Your task to perform on an android device: Go to CNN.com Image 0: 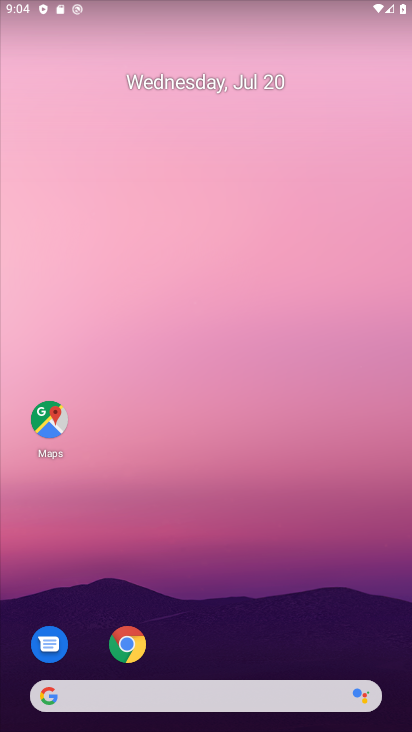
Step 0: click (206, 695)
Your task to perform on an android device: Go to CNN.com Image 1: 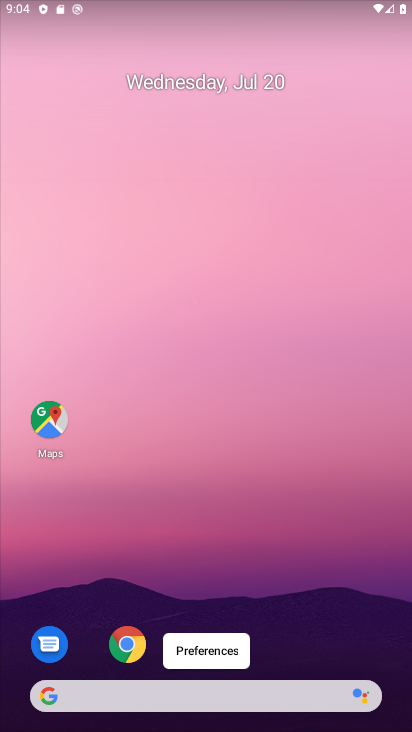
Step 1: click (103, 697)
Your task to perform on an android device: Go to CNN.com Image 2: 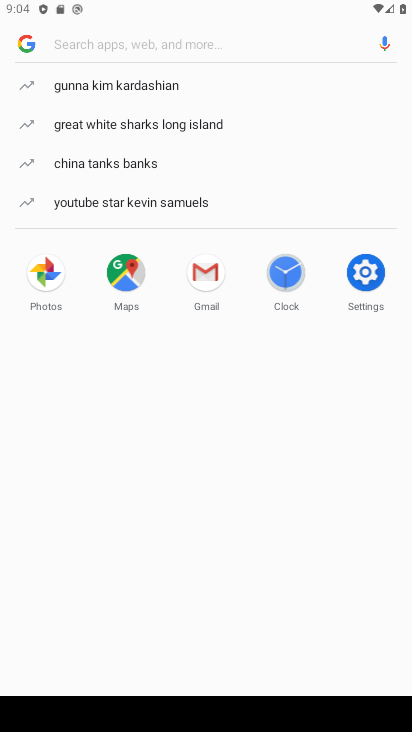
Step 2: type "CNN.com"
Your task to perform on an android device: Go to CNN.com Image 3: 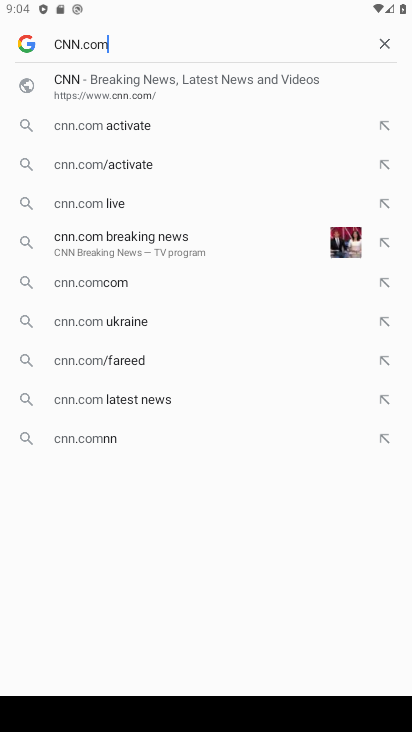
Step 3: press enter
Your task to perform on an android device: Go to CNN.com Image 4: 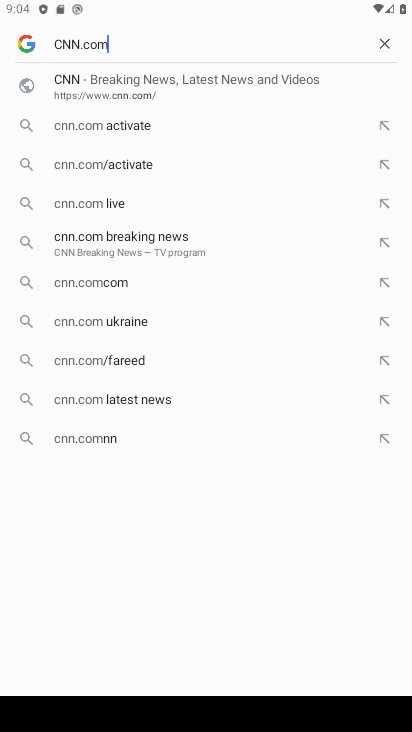
Step 4: type ""
Your task to perform on an android device: Go to CNN.com Image 5: 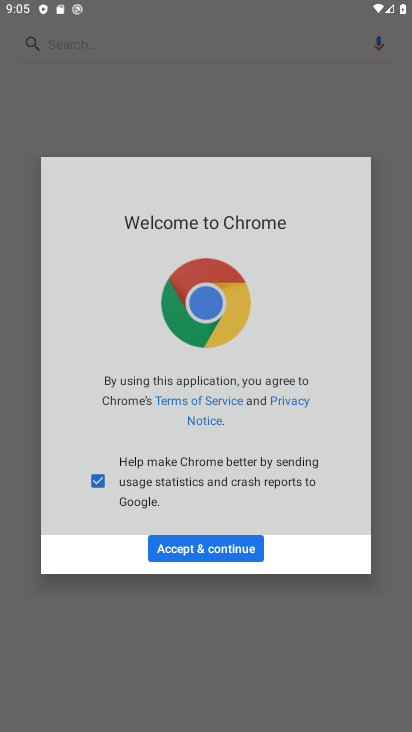
Step 5: click (212, 539)
Your task to perform on an android device: Go to CNN.com Image 6: 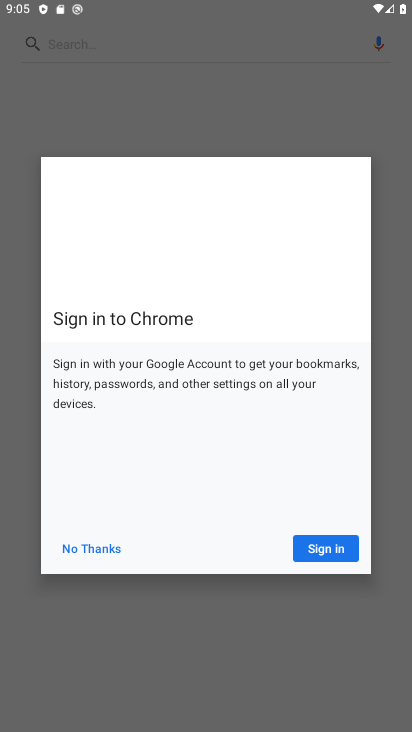
Step 6: click (334, 555)
Your task to perform on an android device: Go to CNN.com Image 7: 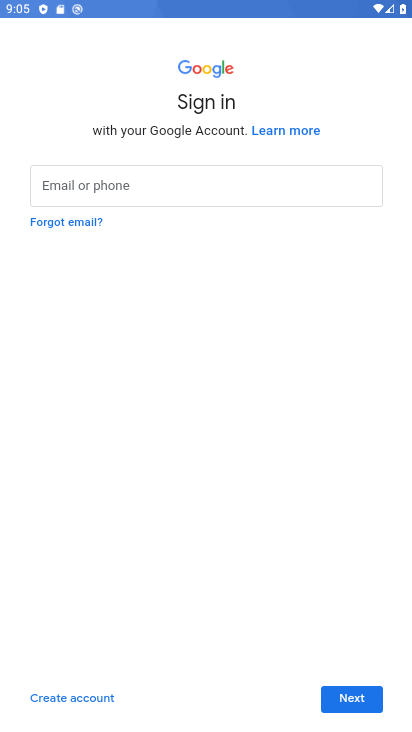
Step 7: task complete